Your task to perform on an android device: open chrome privacy settings Image 0: 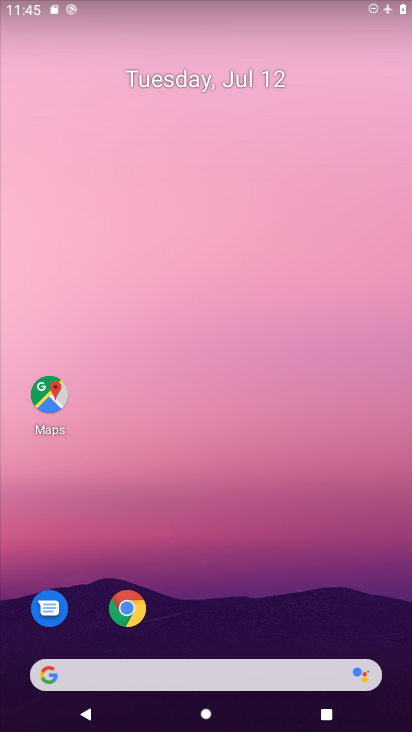
Step 0: drag from (240, 724) to (260, 105)
Your task to perform on an android device: open chrome privacy settings Image 1: 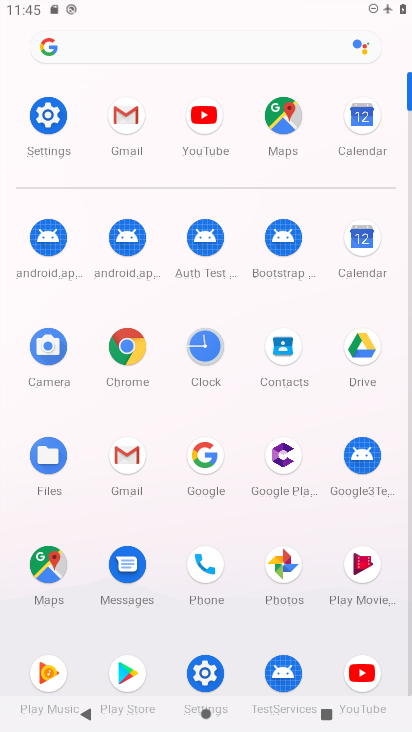
Step 1: click (122, 349)
Your task to perform on an android device: open chrome privacy settings Image 2: 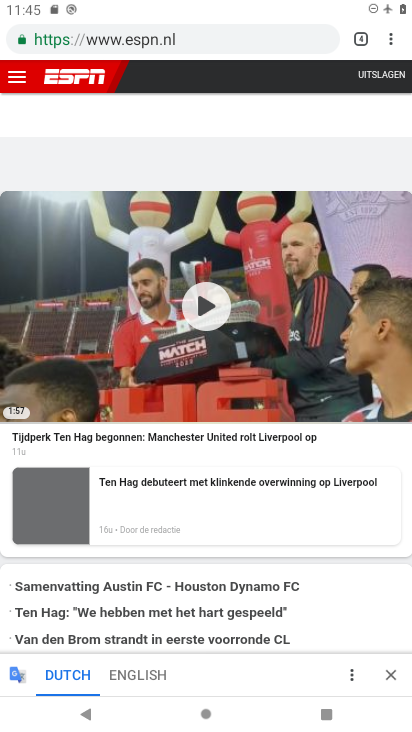
Step 2: click (392, 42)
Your task to perform on an android device: open chrome privacy settings Image 3: 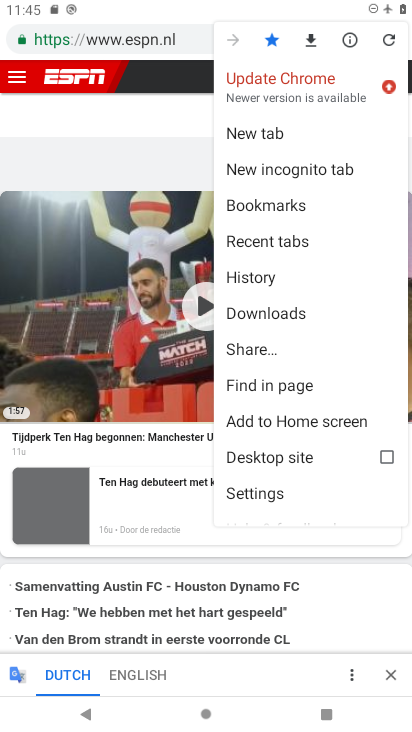
Step 3: click (252, 489)
Your task to perform on an android device: open chrome privacy settings Image 4: 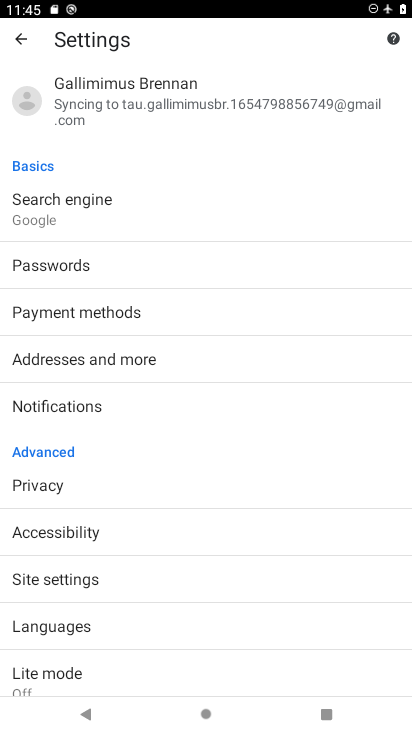
Step 4: click (49, 482)
Your task to perform on an android device: open chrome privacy settings Image 5: 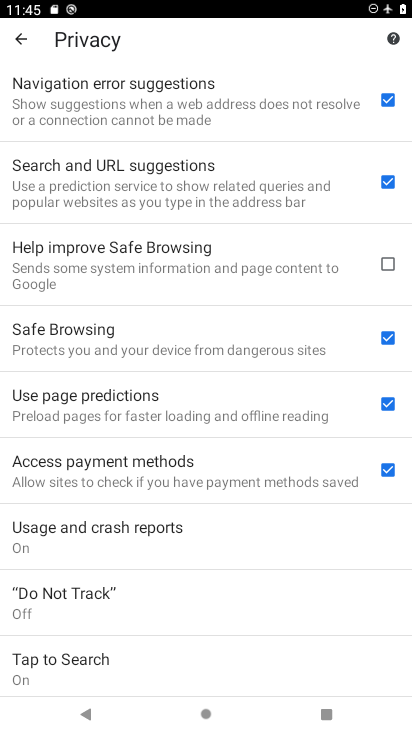
Step 5: task complete